Your task to perform on an android device: Open Google Maps Image 0: 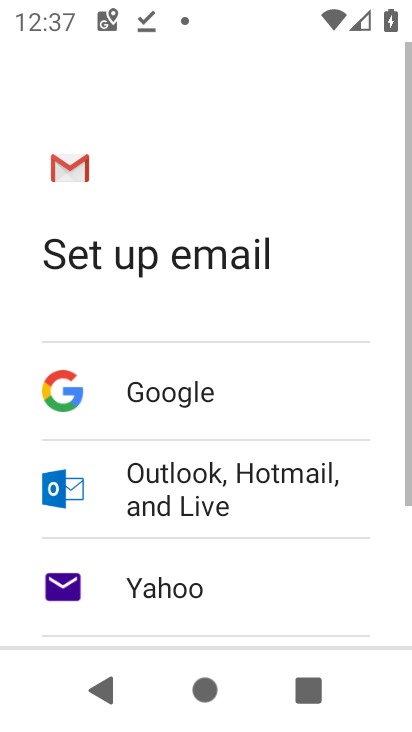
Step 0: press home button
Your task to perform on an android device: Open Google Maps Image 1: 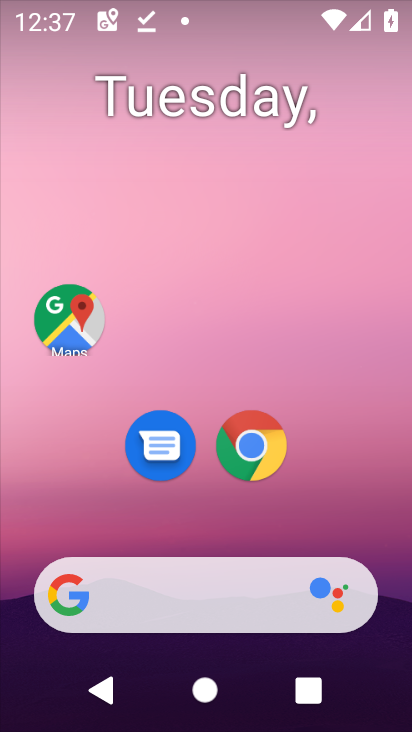
Step 1: click (68, 315)
Your task to perform on an android device: Open Google Maps Image 2: 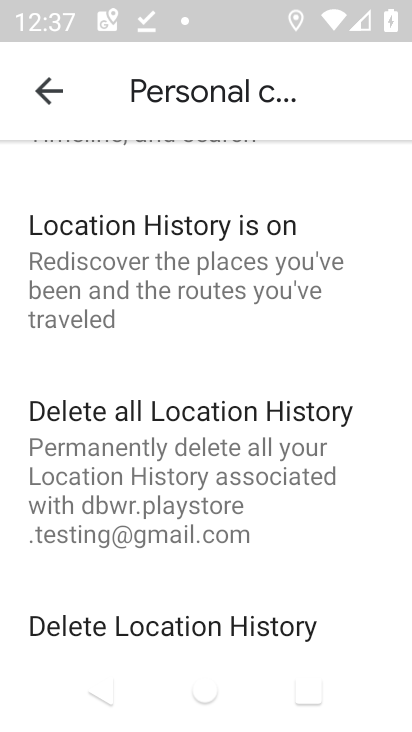
Step 2: click (44, 95)
Your task to perform on an android device: Open Google Maps Image 3: 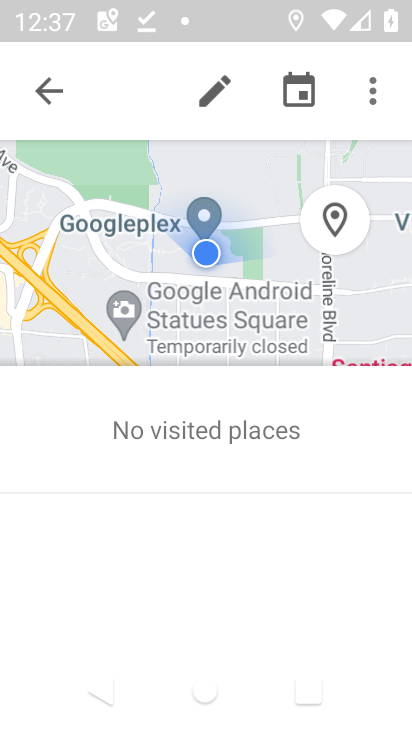
Step 3: task complete